Your task to perform on an android device: Open Google Chrome Image 0: 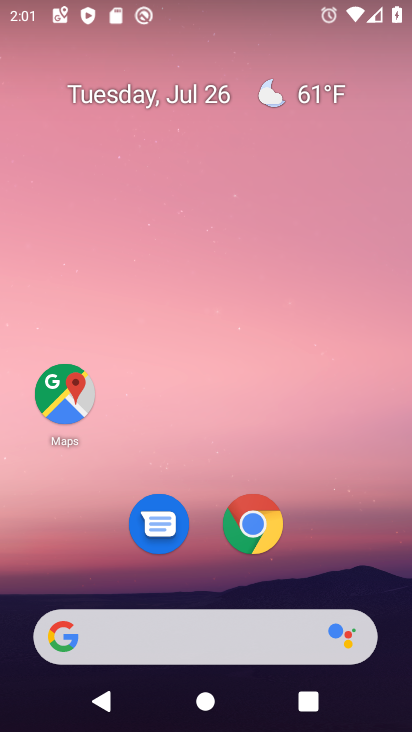
Step 0: press home button
Your task to perform on an android device: Open Google Chrome Image 1: 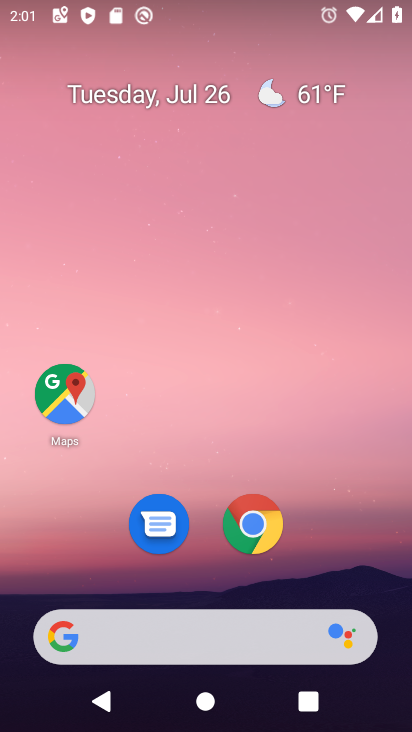
Step 1: click (249, 533)
Your task to perform on an android device: Open Google Chrome Image 2: 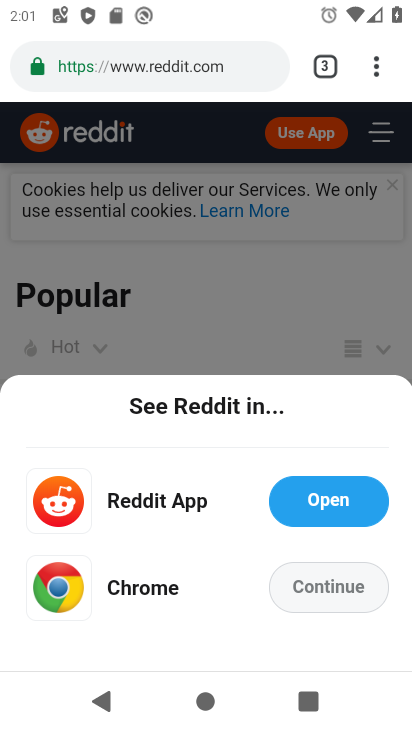
Step 2: task complete